Your task to perform on an android device: Open Chrome and go to settings Image 0: 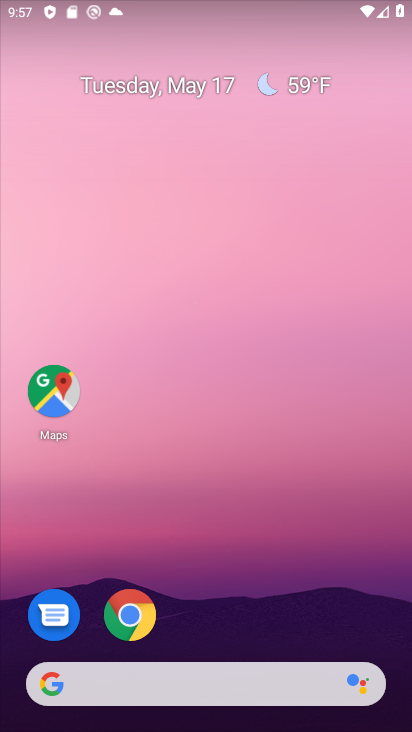
Step 0: click (128, 616)
Your task to perform on an android device: Open Chrome and go to settings Image 1: 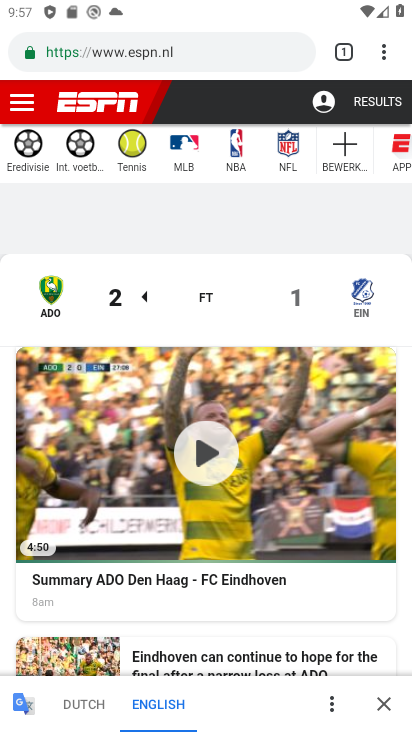
Step 1: task complete